Your task to perform on an android device: Open ESPN.com Image 0: 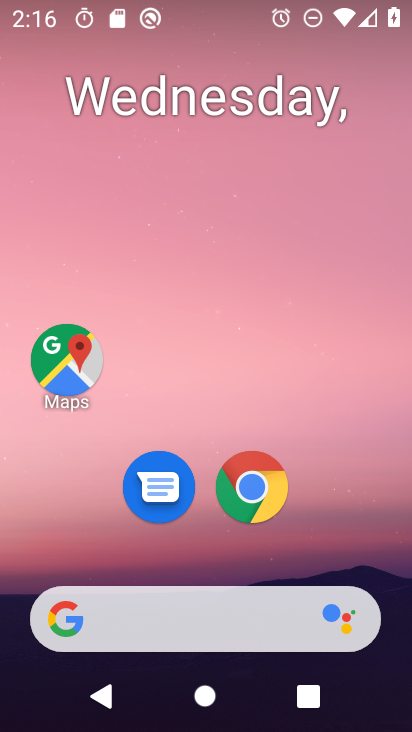
Step 0: click (253, 480)
Your task to perform on an android device: Open ESPN.com Image 1: 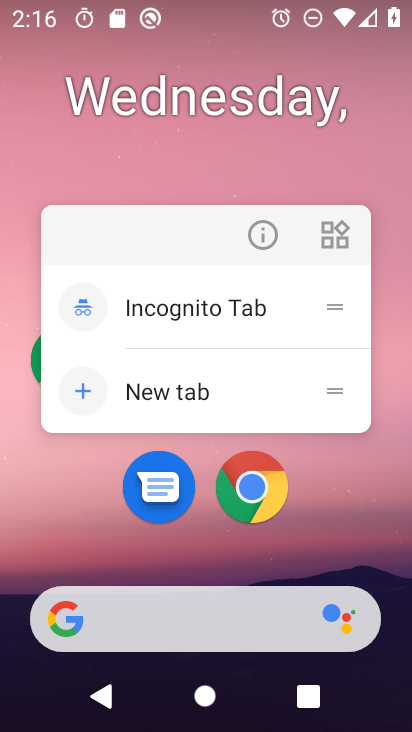
Step 1: click (256, 481)
Your task to perform on an android device: Open ESPN.com Image 2: 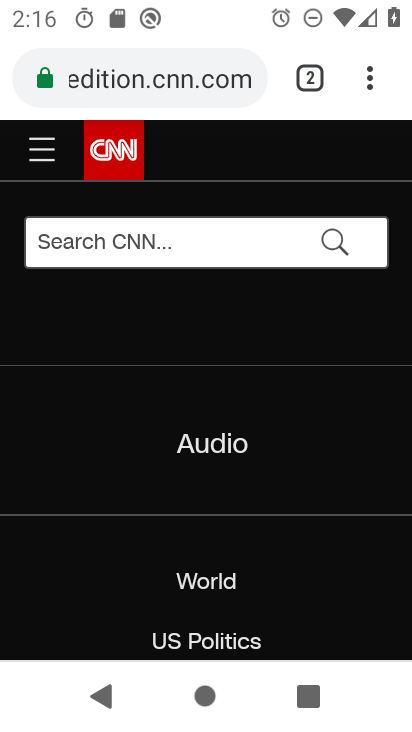
Step 2: click (313, 74)
Your task to perform on an android device: Open ESPN.com Image 3: 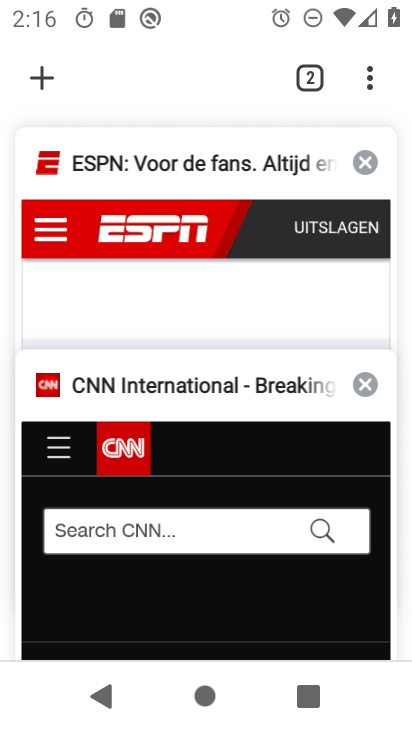
Step 3: click (95, 178)
Your task to perform on an android device: Open ESPN.com Image 4: 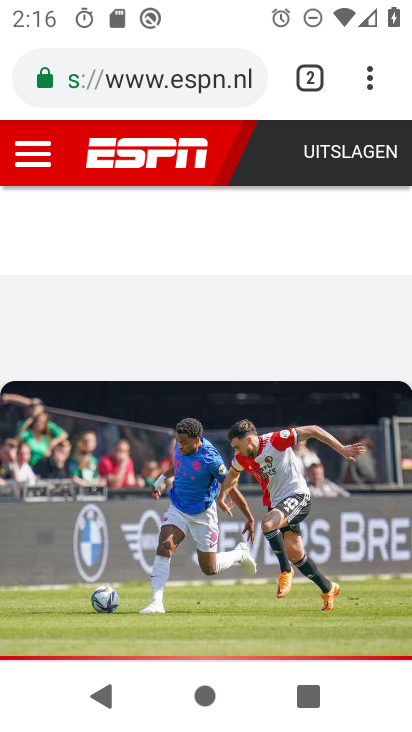
Step 4: task complete